Your task to perform on an android device: Open display settings Image 0: 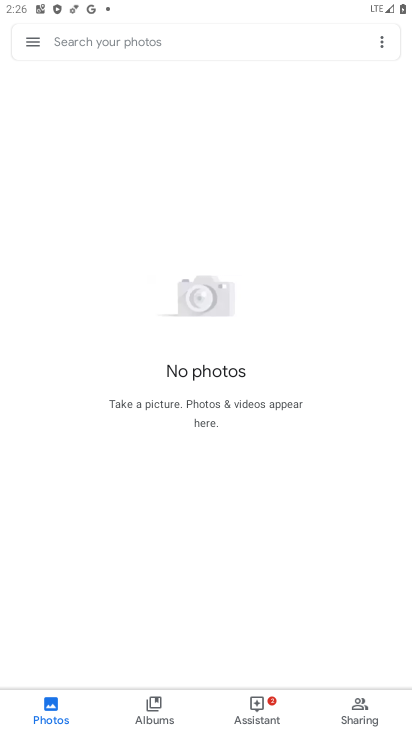
Step 0: press home button
Your task to perform on an android device: Open display settings Image 1: 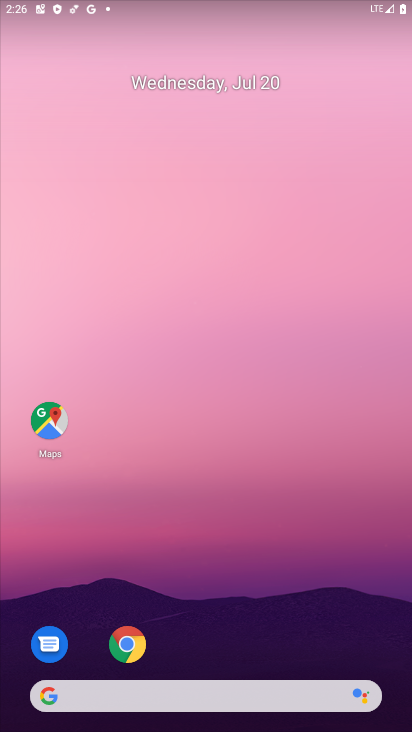
Step 1: drag from (214, 707) to (199, 210)
Your task to perform on an android device: Open display settings Image 2: 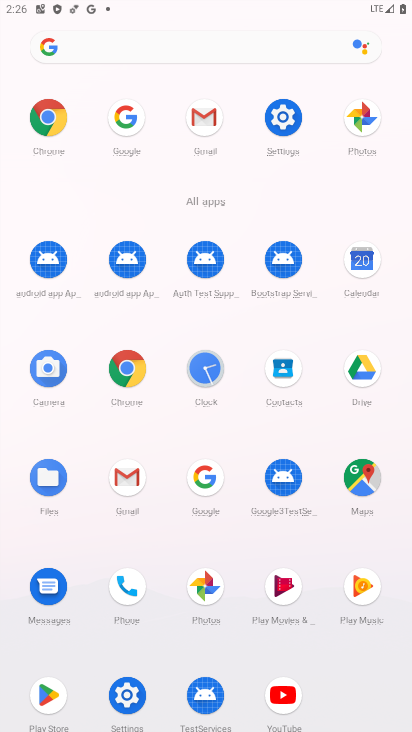
Step 2: click (283, 118)
Your task to perform on an android device: Open display settings Image 3: 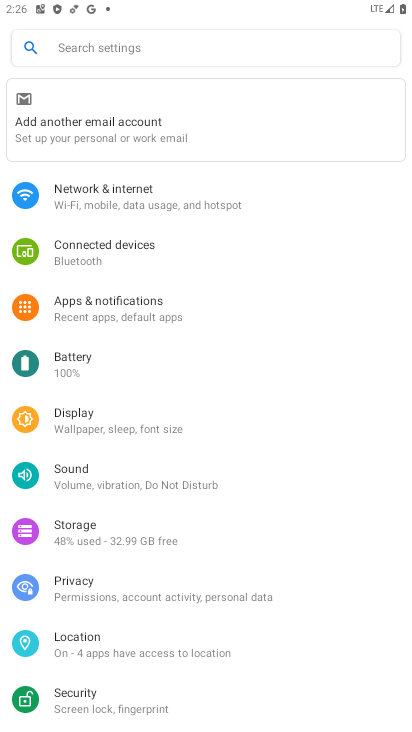
Step 3: click (74, 420)
Your task to perform on an android device: Open display settings Image 4: 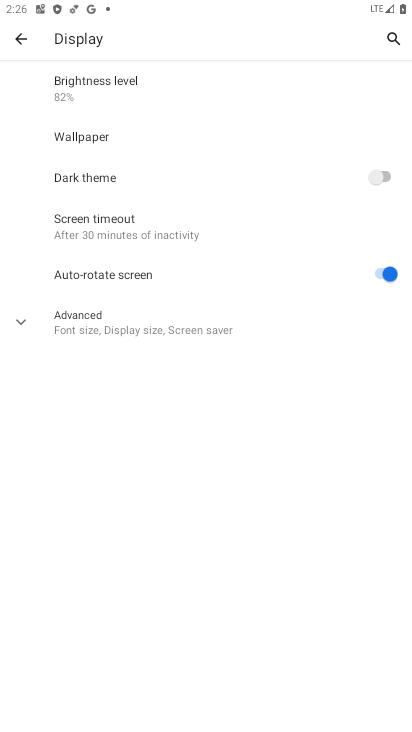
Step 4: task complete